Your task to perform on an android device: Do I have any events this weekend? Image 0: 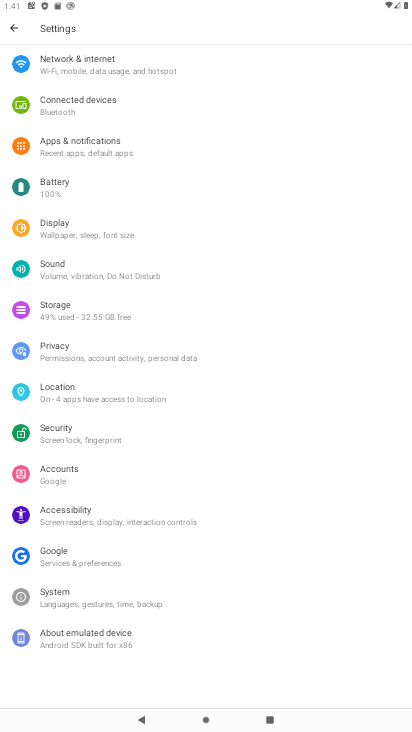
Step 0: press home button
Your task to perform on an android device: Do I have any events this weekend? Image 1: 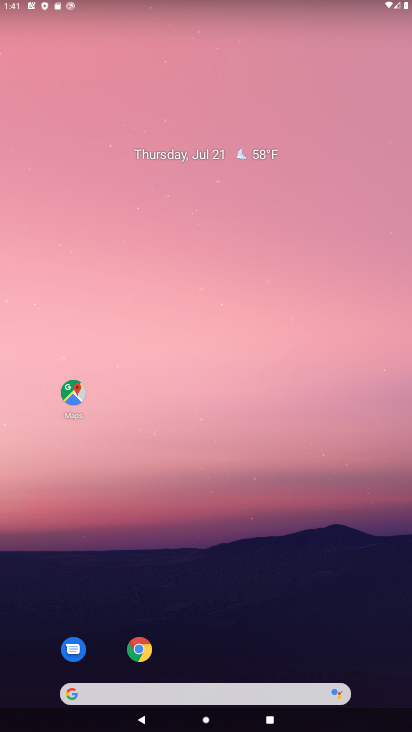
Step 1: drag from (243, 671) to (178, 179)
Your task to perform on an android device: Do I have any events this weekend? Image 2: 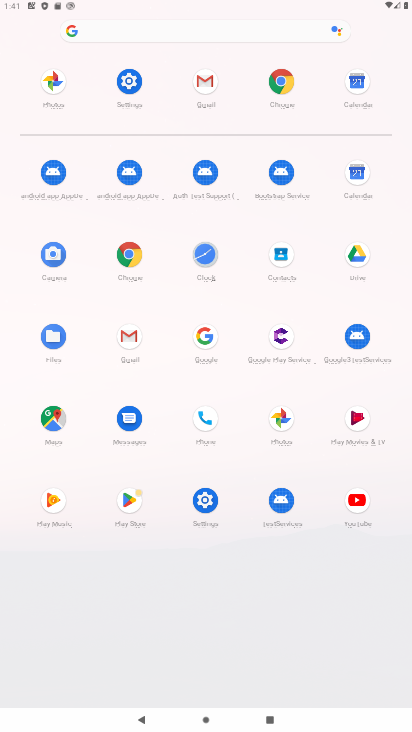
Step 2: click (351, 101)
Your task to perform on an android device: Do I have any events this weekend? Image 3: 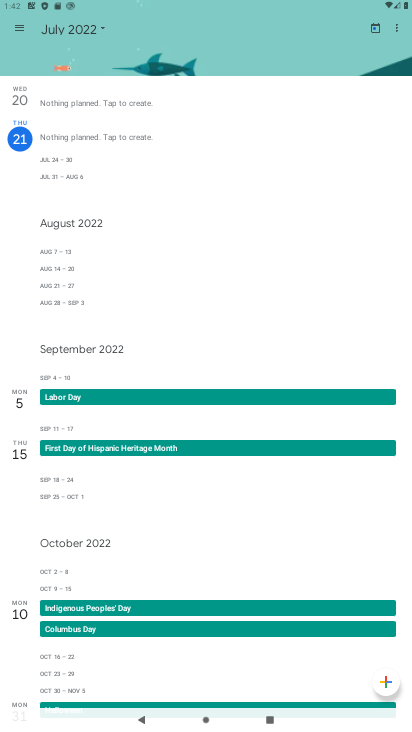
Step 3: task complete